Your task to perform on an android device: Toggle the flashlight Image 0: 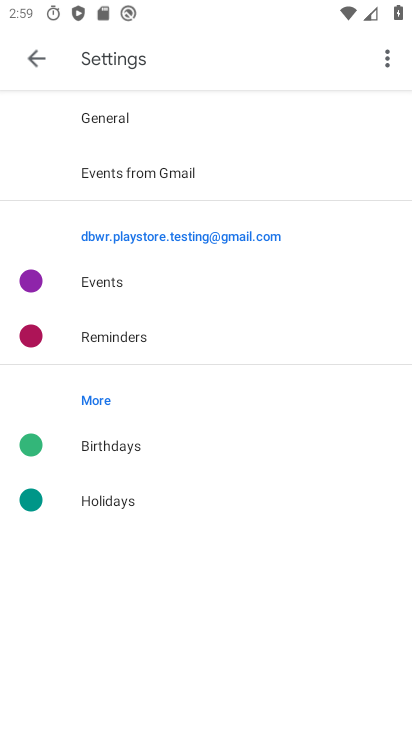
Step 0: press back button
Your task to perform on an android device: Toggle the flashlight Image 1: 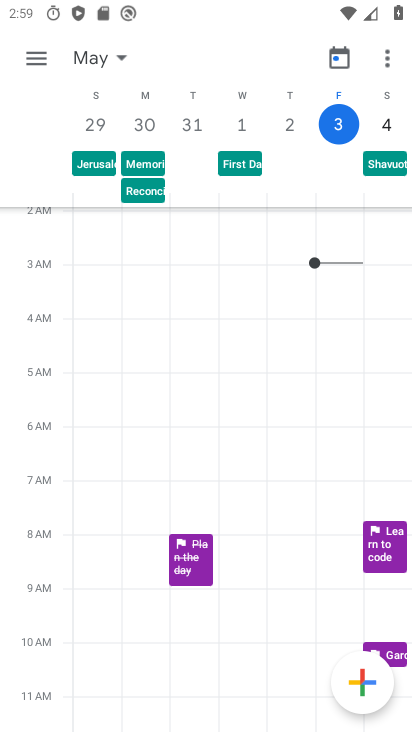
Step 1: press back button
Your task to perform on an android device: Toggle the flashlight Image 2: 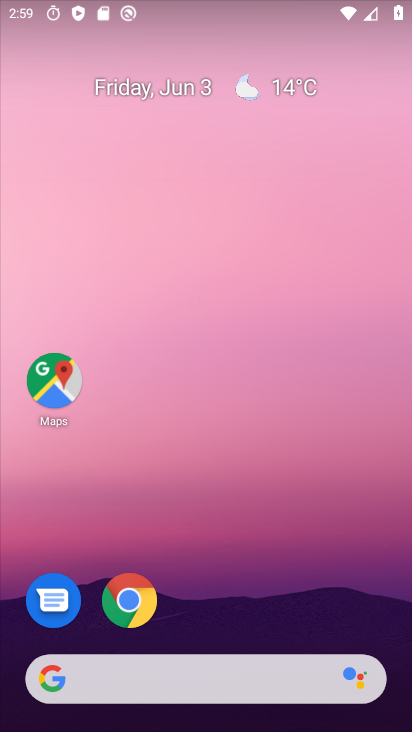
Step 2: drag from (272, 559) to (251, 21)
Your task to perform on an android device: Toggle the flashlight Image 3: 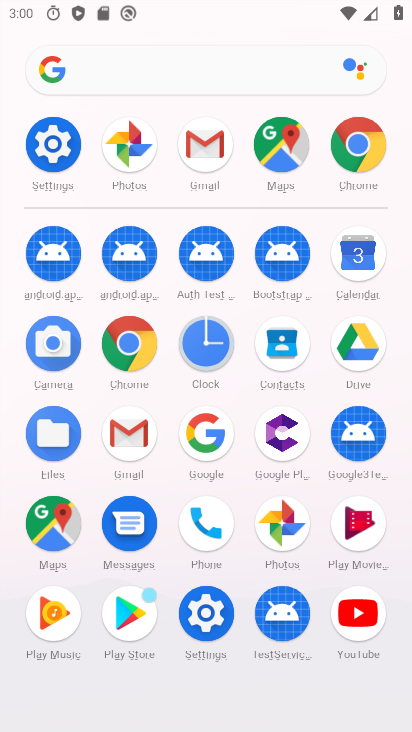
Step 3: click (205, 610)
Your task to perform on an android device: Toggle the flashlight Image 4: 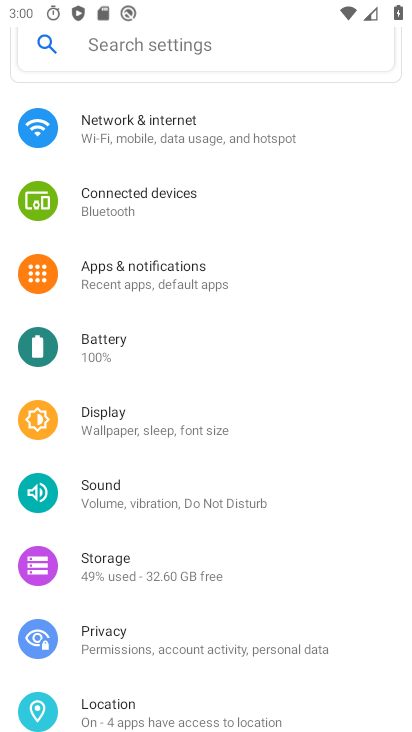
Step 4: click (272, 128)
Your task to perform on an android device: Toggle the flashlight Image 5: 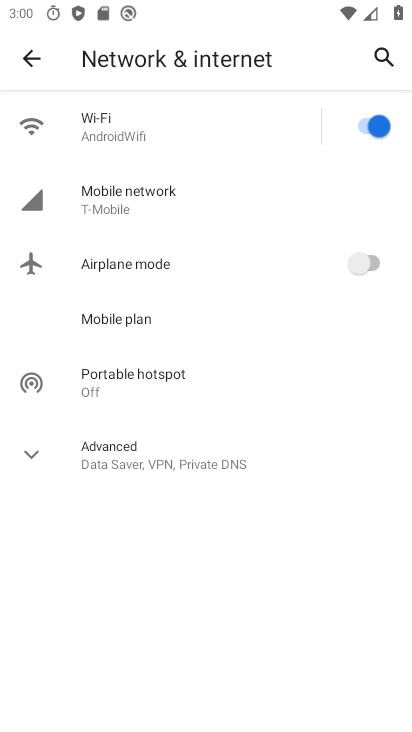
Step 5: click (32, 457)
Your task to perform on an android device: Toggle the flashlight Image 6: 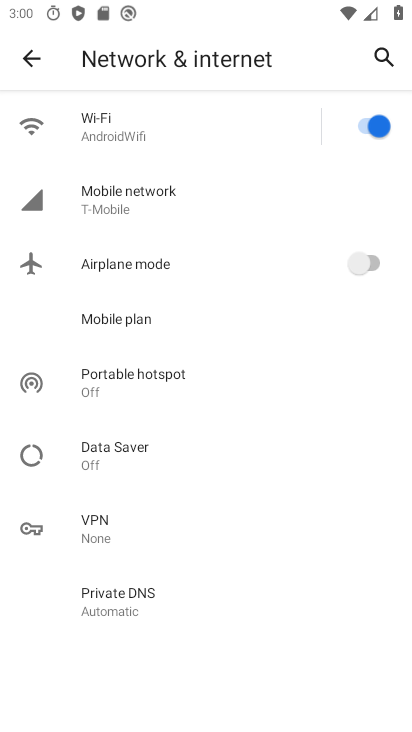
Step 6: task complete